Your task to perform on an android device: Open ESPN.com Image 0: 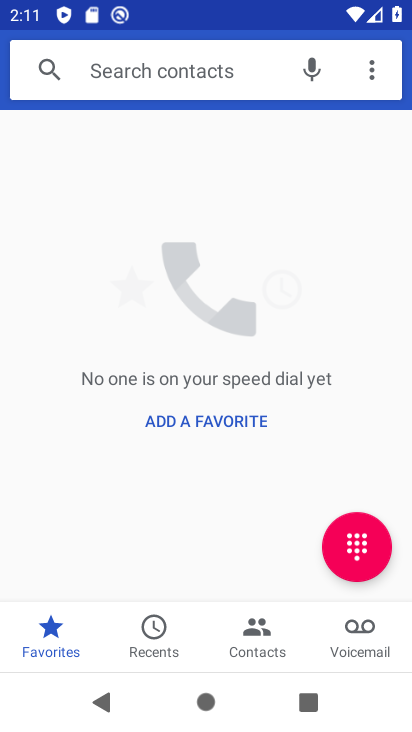
Step 0: press back button
Your task to perform on an android device: Open ESPN.com Image 1: 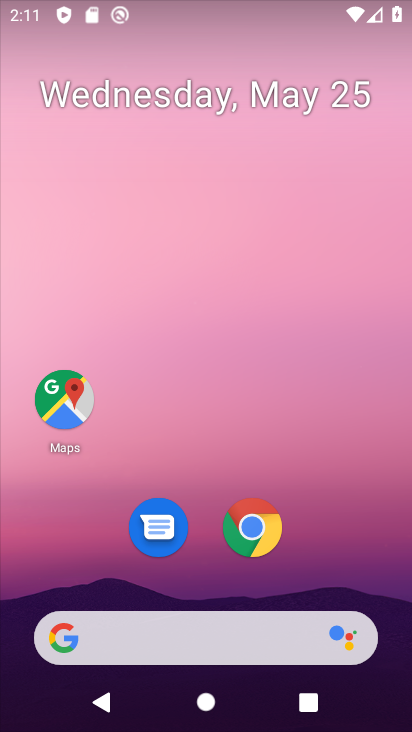
Step 1: click (259, 516)
Your task to perform on an android device: Open ESPN.com Image 2: 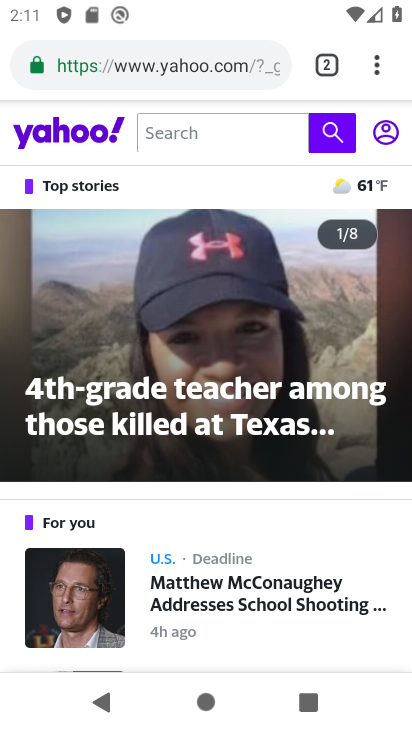
Step 2: click (332, 71)
Your task to perform on an android device: Open ESPN.com Image 3: 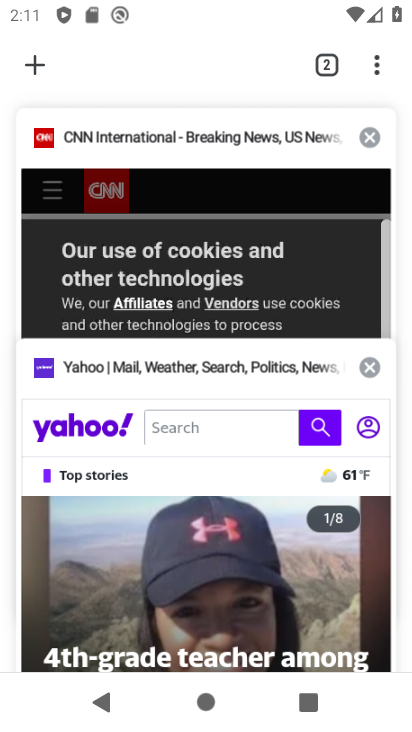
Step 3: click (36, 67)
Your task to perform on an android device: Open ESPN.com Image 4: 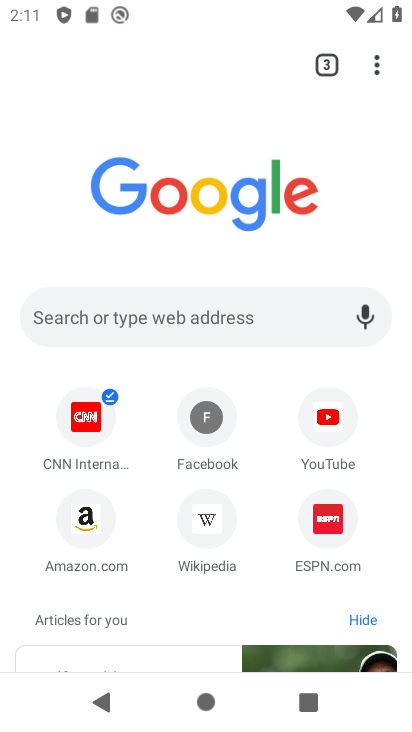
Step 4: click (122, 318)
Your task to perform on an android device: Open ESPN.com Image 5: 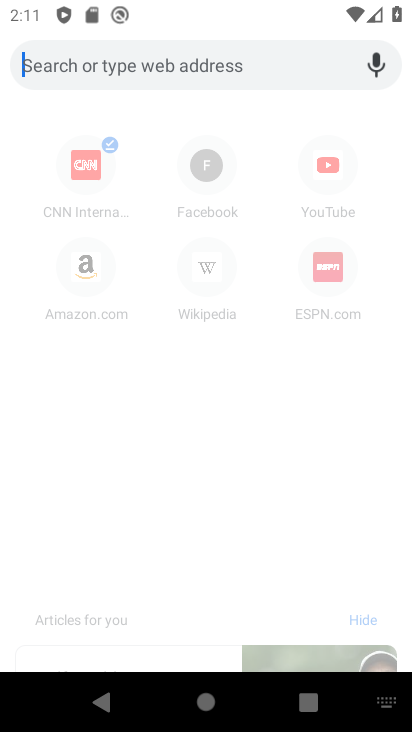
Step 5: click (327, 286)
Your task to perform on an android device: Open ESPN.com Image 6: 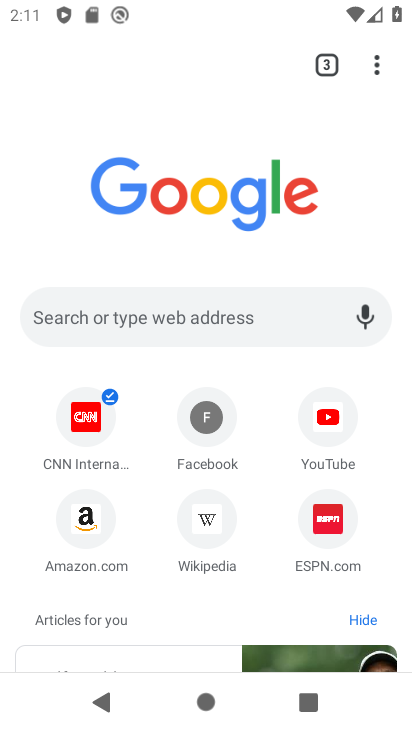
Step 6: click (341, 521)
Your task to perform on an android device: Open ESPN.com Image 7: 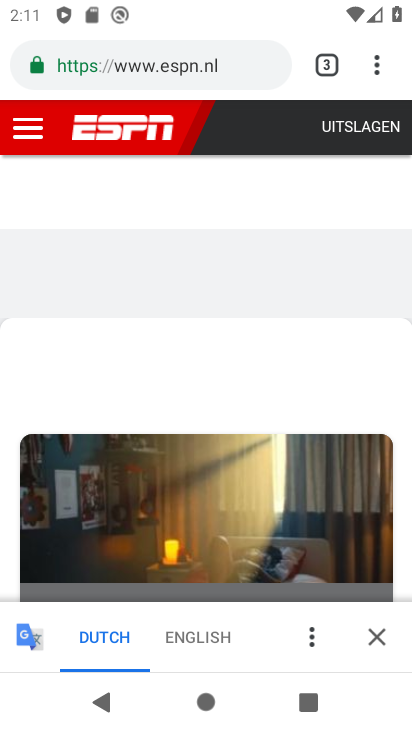
Step 7: task complete